Your task to perform on an android device: find photos in the google photos app Image 0: 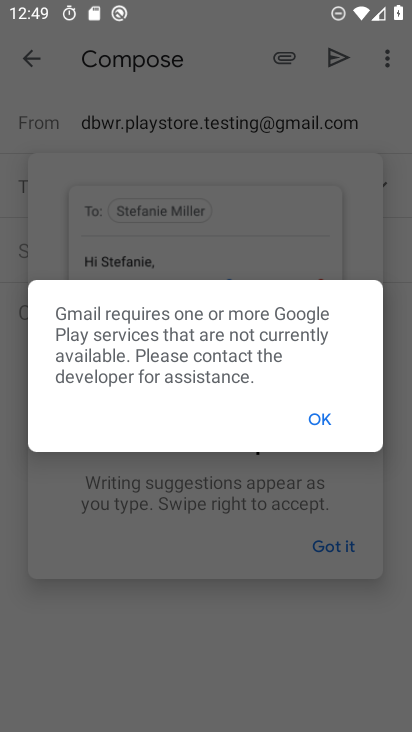
Step 0: press home button
Your task to perform on an android device: find photos in the google photos app Image 1: 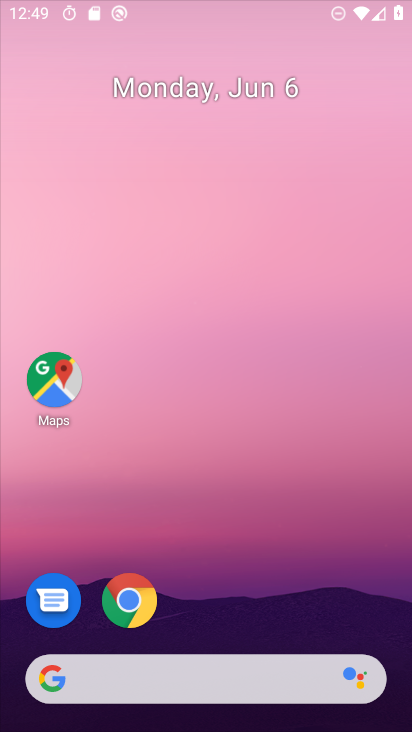
Step 1: drag from (250, 620) to (258, 122)
Your task to perform on an android device: find photos in the google photos app Image 2: 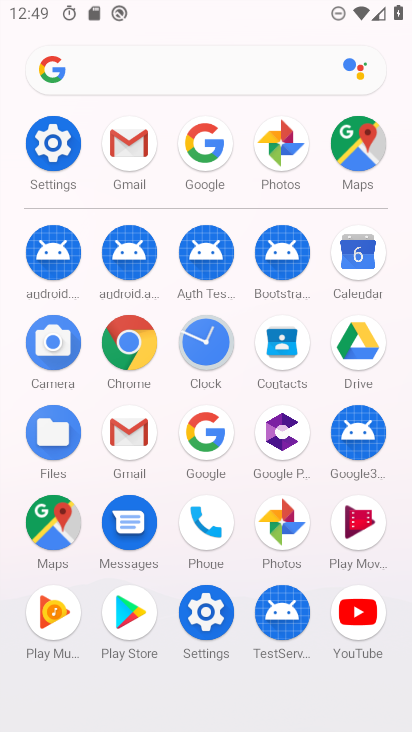
Step 2: click (288, 157)
Your task to perform on an android device: find photos in the google photos app Image 3: 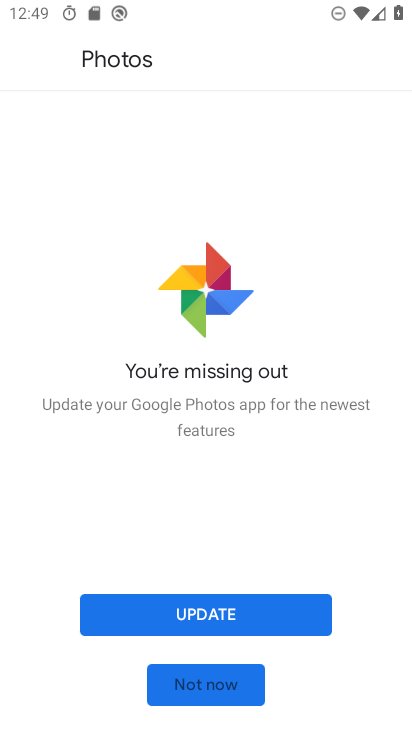
Step 3: click (230, 691)
Your task to perform on an android device: find photos in the google photos app Image 4: 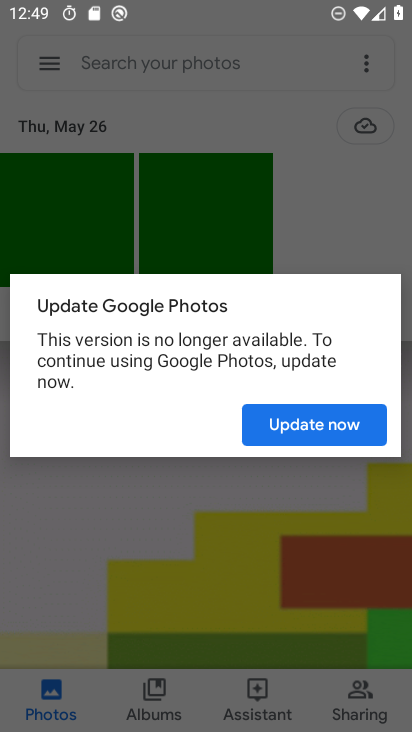
Step 4: click (295, 418)
Your task to perform on an android device: find photos in the google photos app Image 5: 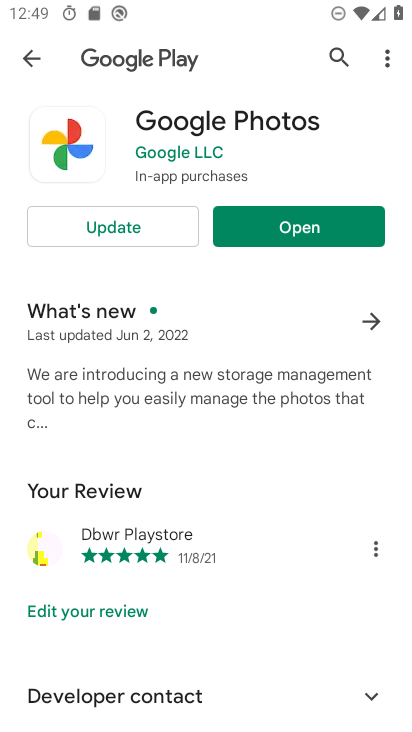
Step 5: click (272, 228)
Your task to perform on an android device: find photos in the google photos app Image 6: 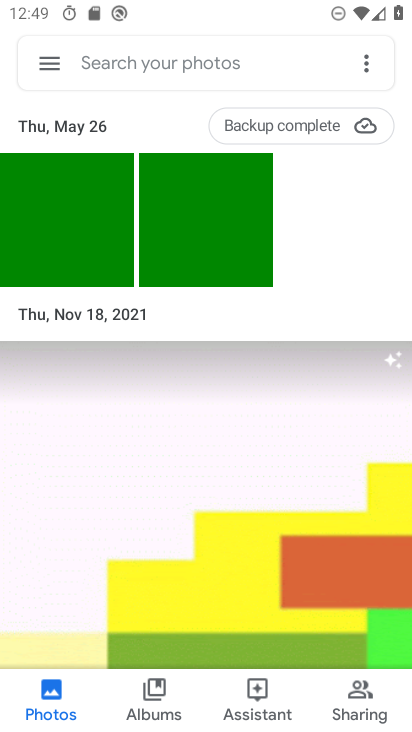
Step 6: click (242, 67)
Your task to perform on an android device: find photos in the google photos app Image 7: 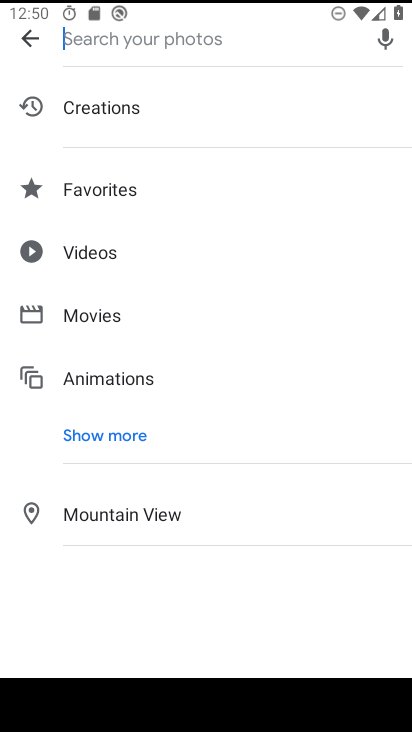
Step 7: type "aa"
Your task to perform on an android device: find photos in the google photos app Image 8: 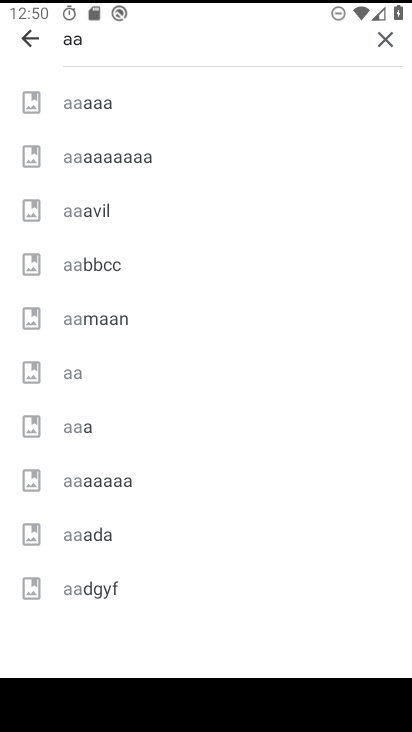
Step 8: click (121, 112)
Your task to perform on an android device: find photos in the google photos app Image 9: 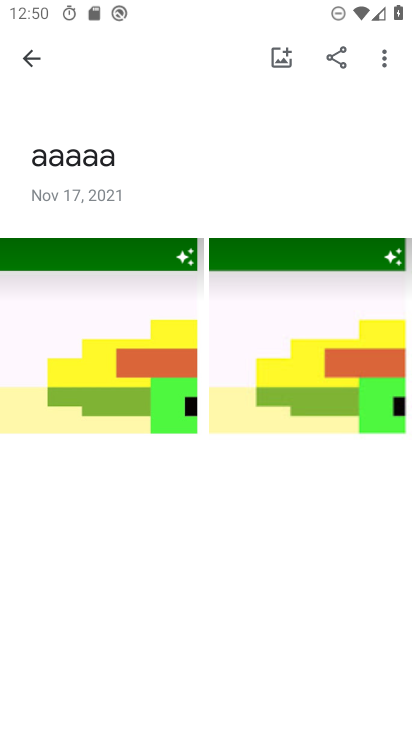
Step 9: task complete